Your task to perform on an android device: toggle javascript in the chrome app Image 0: 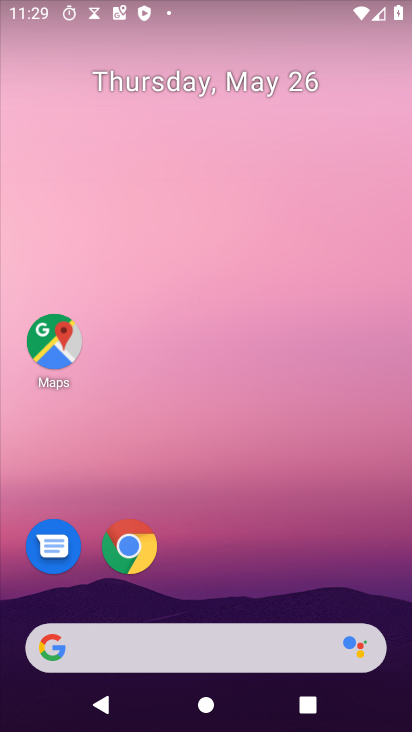
Step 0: drag from (281, 555) to (301, 211)
Your task to perform on an android device: toggle javascript in the chrome app Image 1: 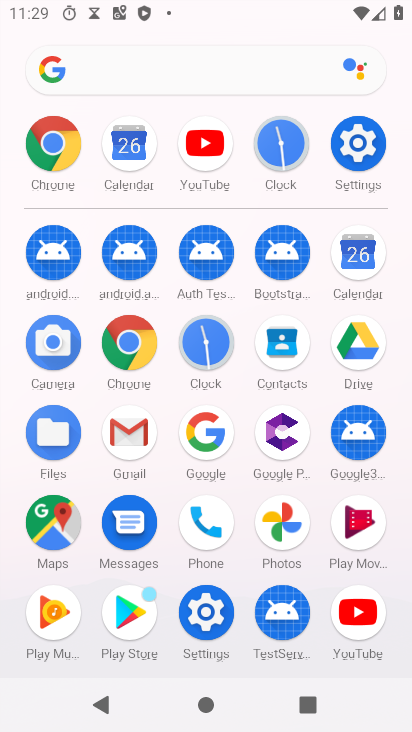
Step 1: click (144, 359)
Your task to perform on an android device: toggle javascript in the chrome app Image 2: 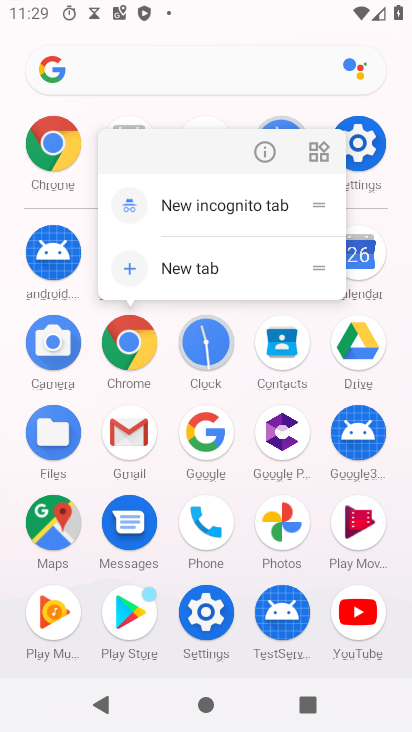
Step 2: click (144, 359)
Your task to perform on an android device: toggle javascript in the chrome app Image 3: 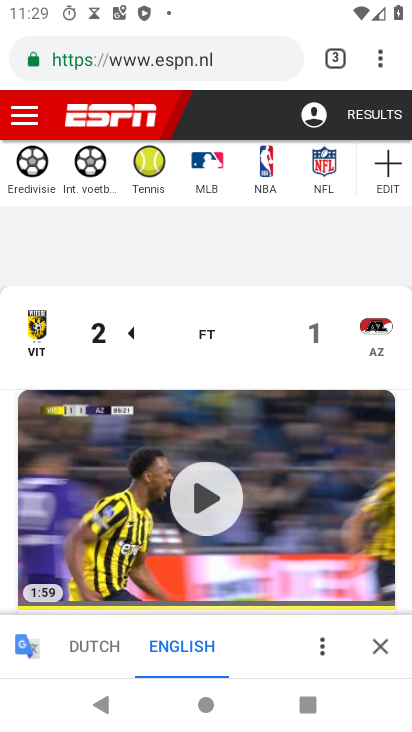
Step 3: drag from (373, 56) to (207, 576)
Your task to perform on an android device: toggle javascript in the chrome app Image 4: 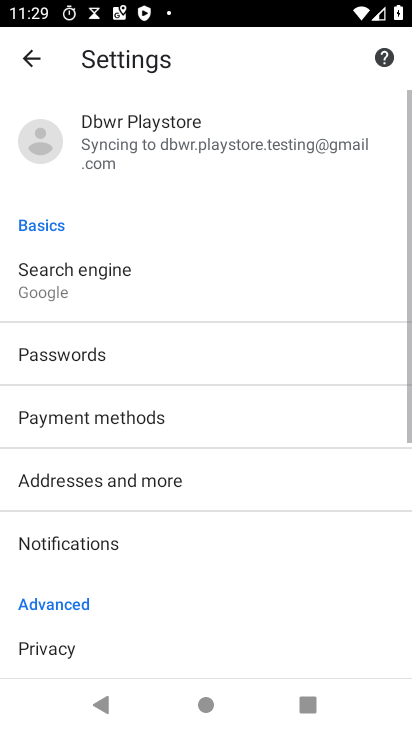
Step 4: drag from (208, 589) to (280, 274)
Your task to perform on an android device: toggle javascript in the chrome app Image 5: 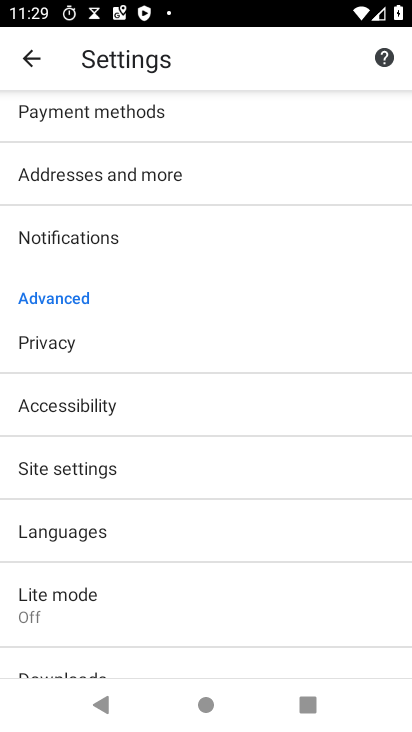
Step 5: drag from (171, 543) to (296, 270)
Your task to perform on an android device: toggle javascript in the chrome app Image 6: 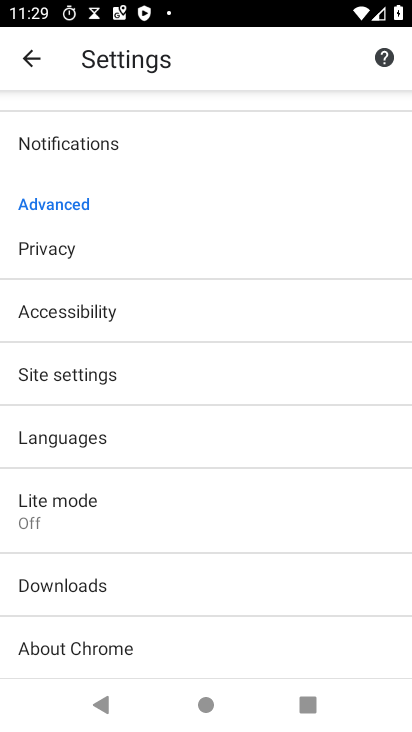
Step 6: click (92, 384)
Your task to perform on an android device: toggle javascript in the chrome app Image 7: 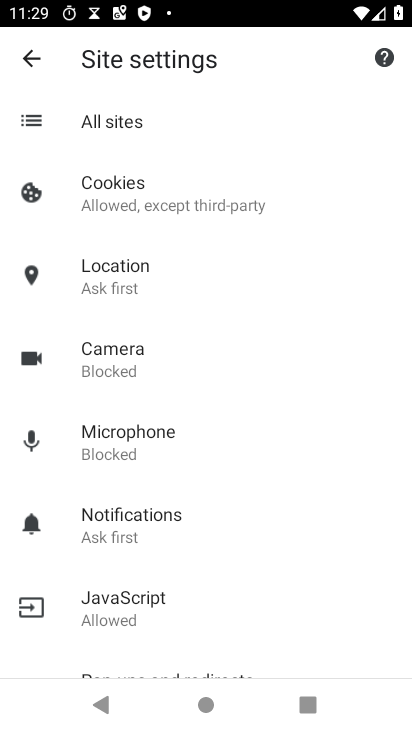
Step 7: drag from (198, 573) to (247, 368)
Your task to perform on an android device: toggle javascript in the chrome app Image 8: 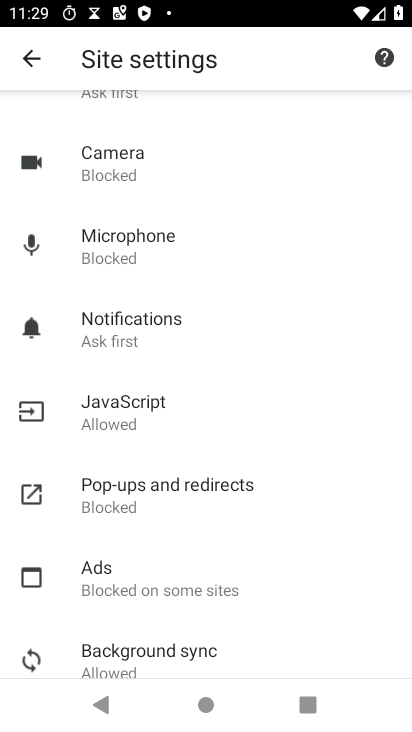
Step 8: click (135, 431)
Your task to perform on an android device: toggle javascript in the chrome app Image 9: 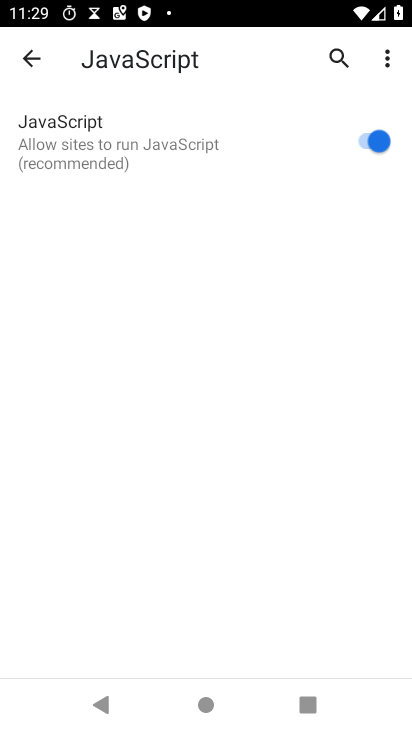
Step 9: click (361, 140)
Your task to perform on an android device: toggle javascript in the chrome app Image 10: 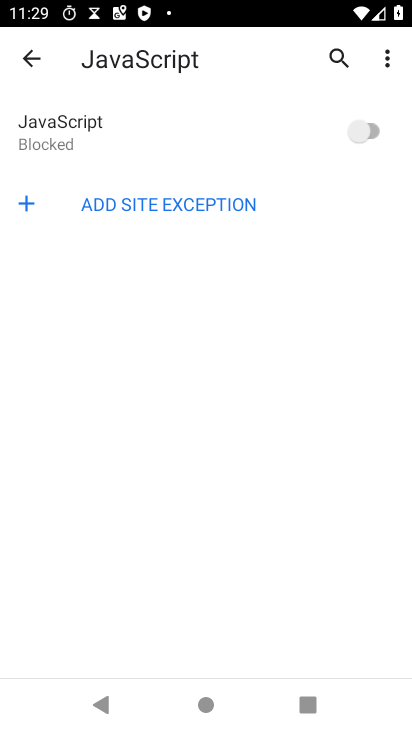
Step 10: task complete